Your task to perform on an android device: Show me the alarms in the clock app Image 0: 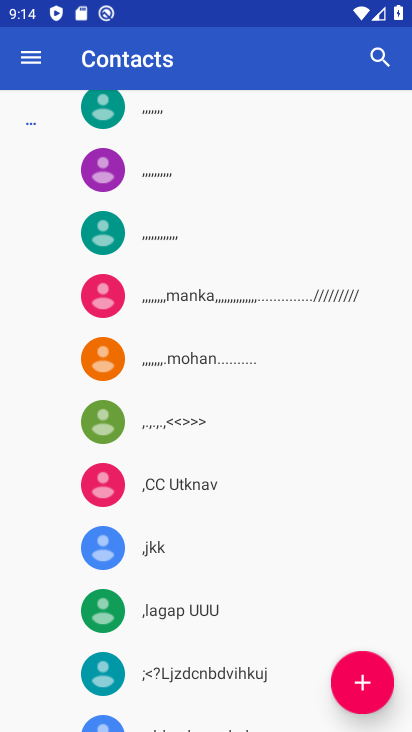
Step 0: press home button
Your task to perform on an android device: Show me the alarms in the clock app Image 1: 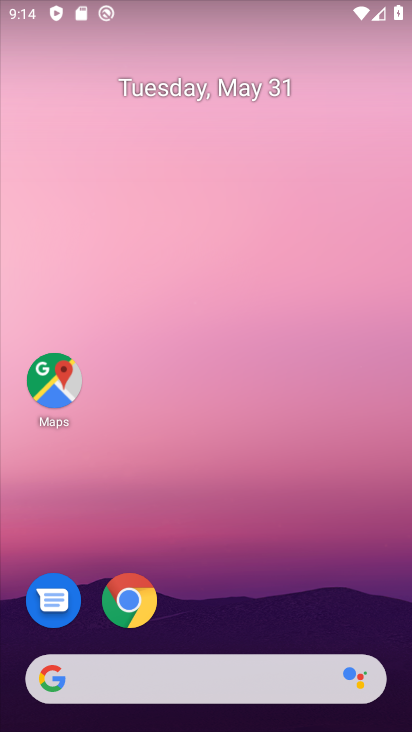
Step 1: drag from (219, 632) to (205, 101)
Your task to perform on an android device: Show me the alarms in the clock app Image 2: 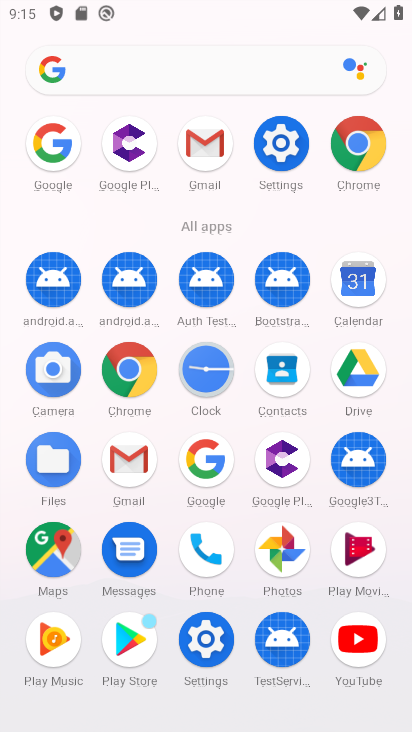
Step 2: click (200, 372)
Your task to perform on an android device: Show me the alarms in the clock app Image 3: 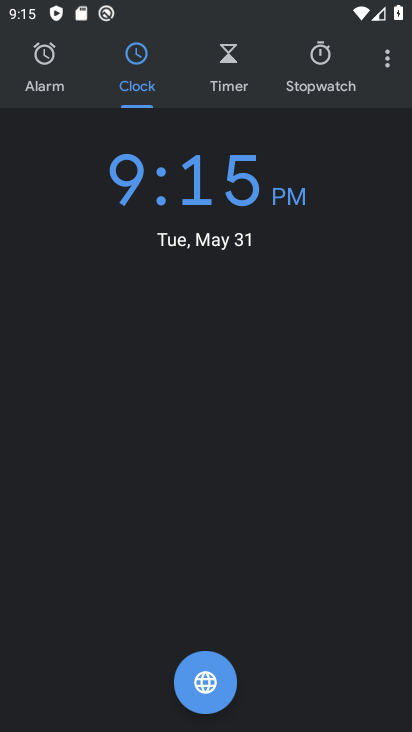
Step 3: click (385, 67)
Your task to perform on an android device: Show me the alarms in the clock app Image 4: 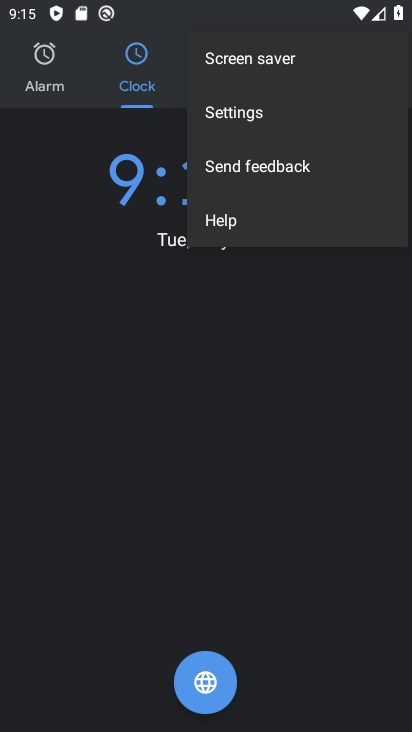
Step 4: click (74, 76)
Your task to perform on an android device: Show me the alarms in the clock app Image 5: 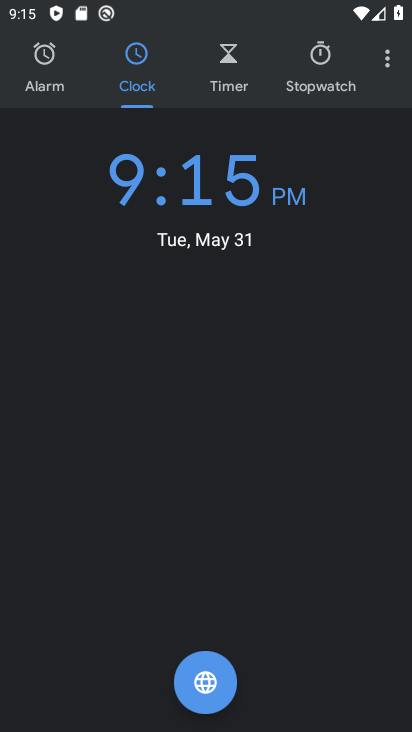
Step 5: click (40, 83)
Your task to perform on an android device: Show me the alarms in the clock app Image 6: 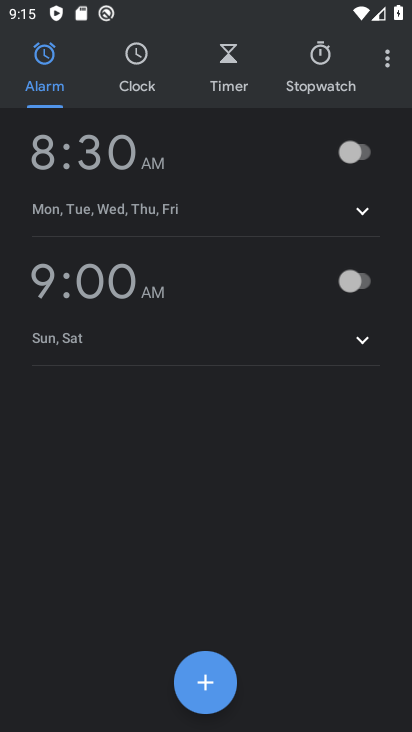
Step 6: task complete